Your task to perform on an android device: check battery use Image 0: 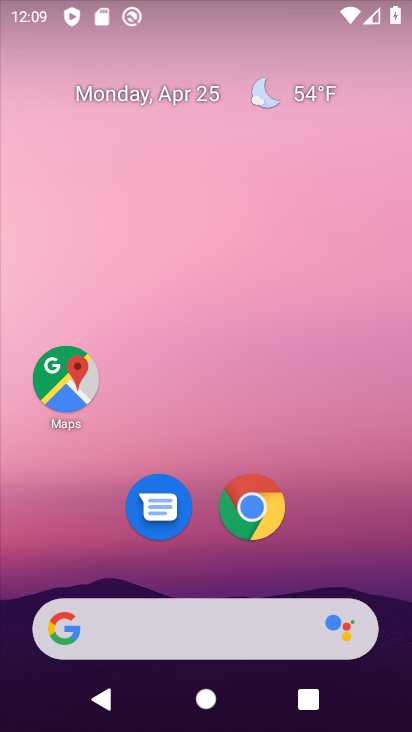
Step 0: drag from (344, 478) to (268, 5)
Your task to perform on an android device: check battery use Image 1: 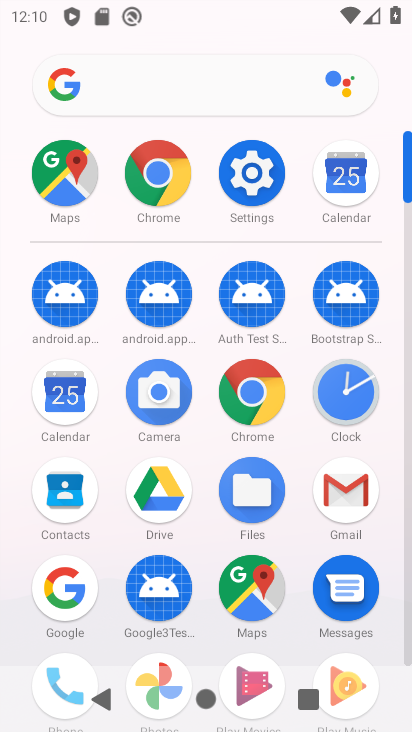
Step 1: drag from (12, 520) to (0, 277)
Your task to perform on an android device: check battery use Image 2: 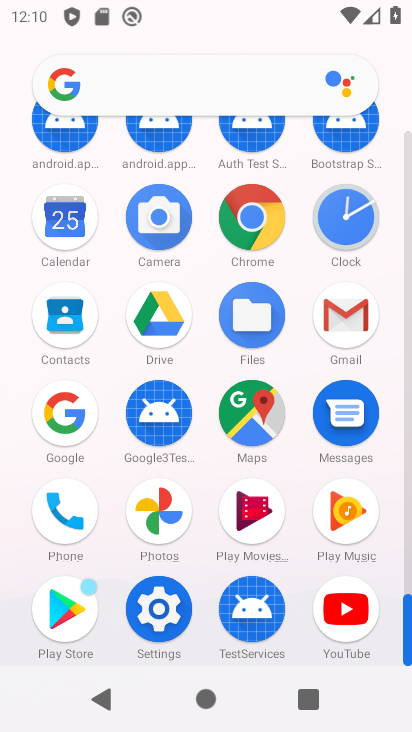
Step 2: click (157, 611)
Your task to perform on an android device: check battery use Image 3: 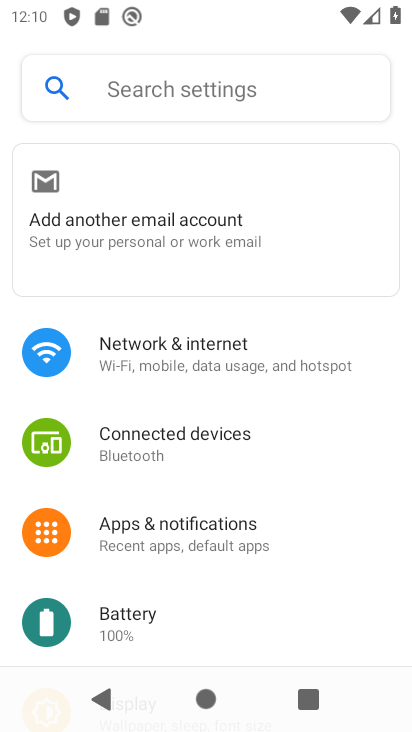
Step 3: drag from (326, 394) to (346, 117)
Your task to perform on an android device: check battery use Image 4: 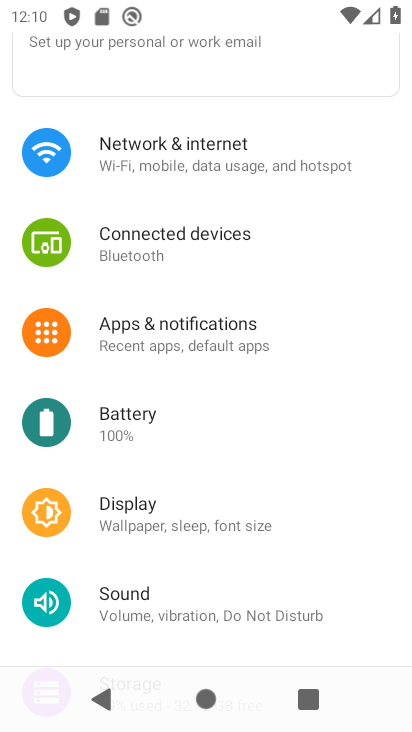
Step 4: click (163, 416)
Your task to perform on an android device: check battery use Image 5: 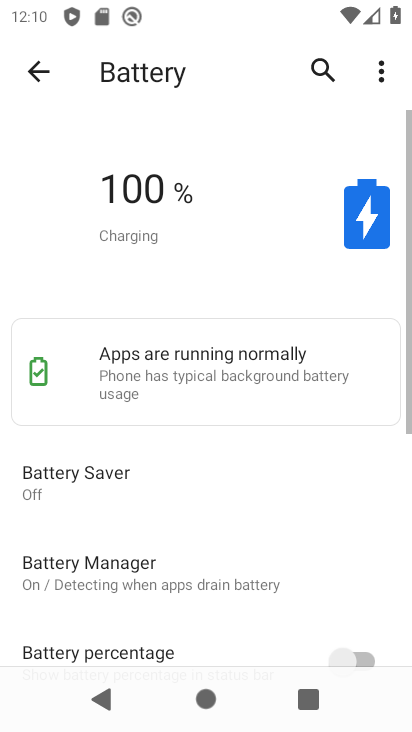
Step 5: drag from (230, 488) to (249, 98)
Your task to perform on an android device: check battery use Image 6: 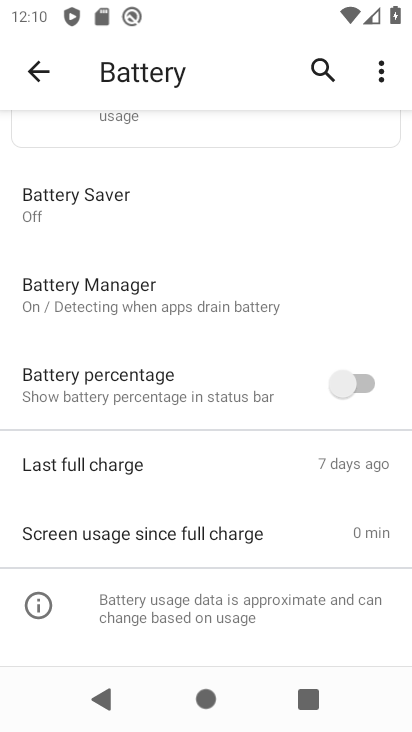
Step 6: drag from (237, 193) to (226, 540)
Your task to perform on an android device: check battery use Image 7: 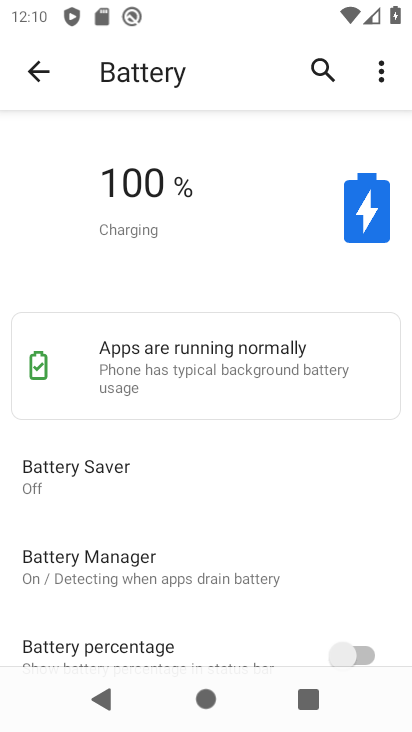
Step 7: click (388, 73)
Your task to perform on an android device: check battery use Image 8: 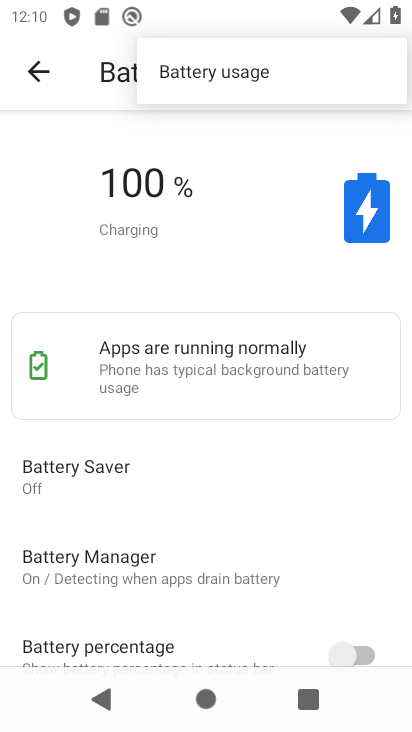
Step 8: click (265, 80)
Your task to perform on an android device: check battery use Image 9: 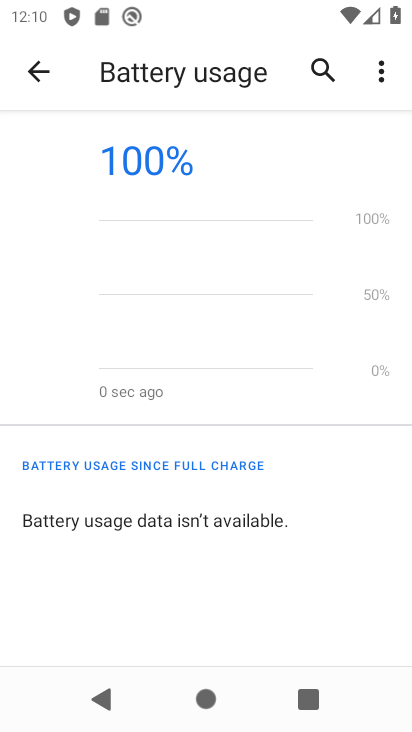
Step 9: task complete